Your task to perform on an android device: change notifications settings Image 0: 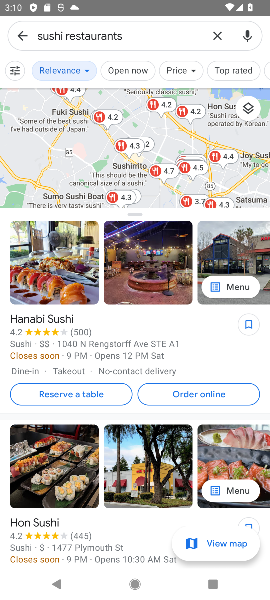
Step 0: press home button
Your task to perform on an android device: change notifications settings Image 1: 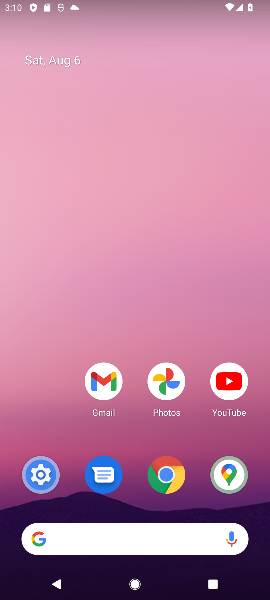
Step 1: click (38, 482)
Your task to perform on an android device: change notifications settings Image 2: 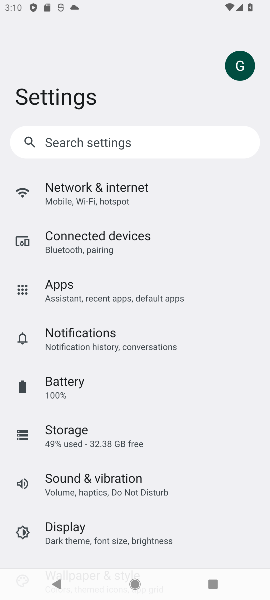
Step 2: click (119, 347)
Your task to perform on an android device: change notifications settings Image 3: 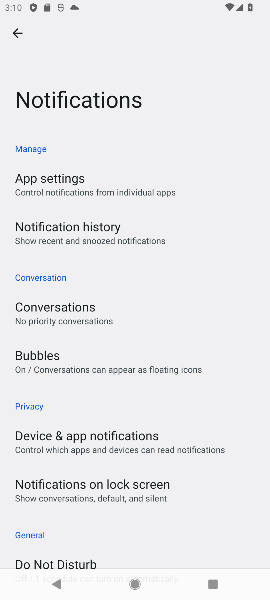
Step 3: click (73, 181)
Your task to perform on an android device: change notifications settings Image 4: 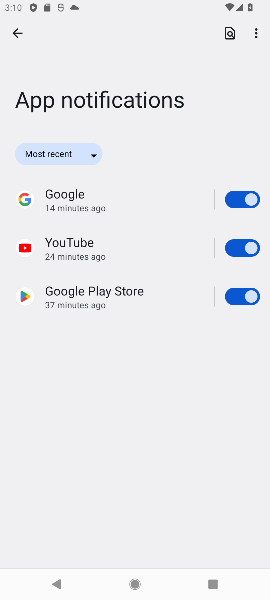
Step 4: task complete